Your task to perform on an android device: When is my next appointment? Image 0: 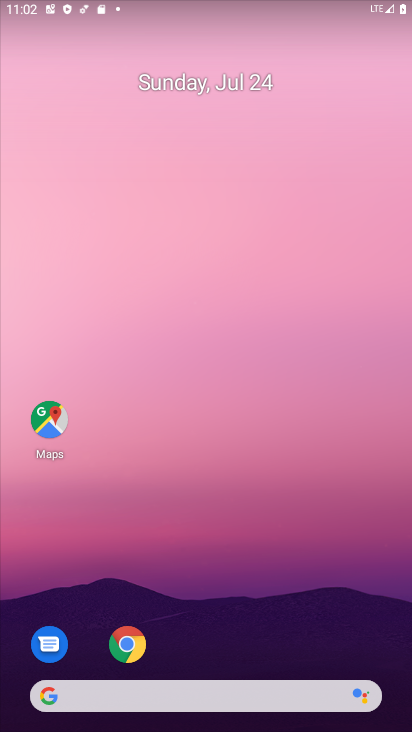
Step 0: press home button
Your task to perform on an android device: When is my next appointment? Image 1: 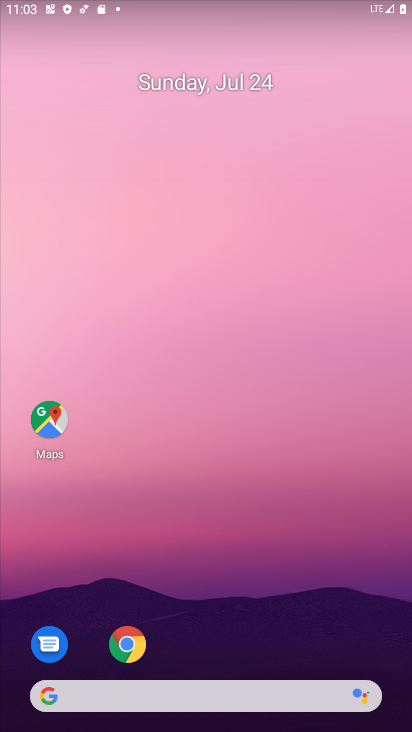
Step 1: drag from (222, 209) to (258, 74)
Your task to perform on an android device: When is my next appointment? Image 2: 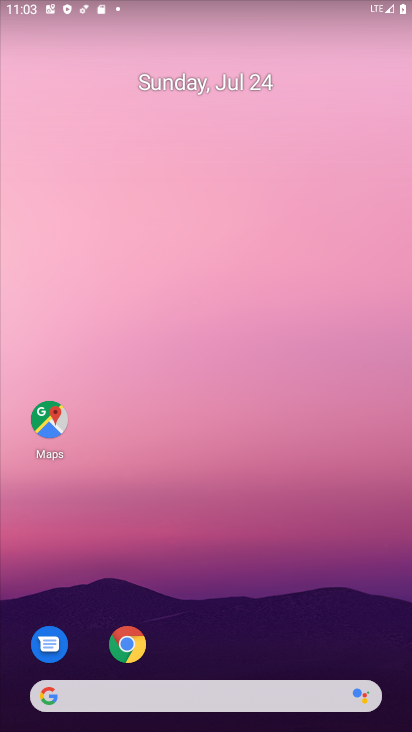
Step 2: drag from (93, 491) to (287, 17)
Your task to perform on an android device: When is my next appointment? Image 3: 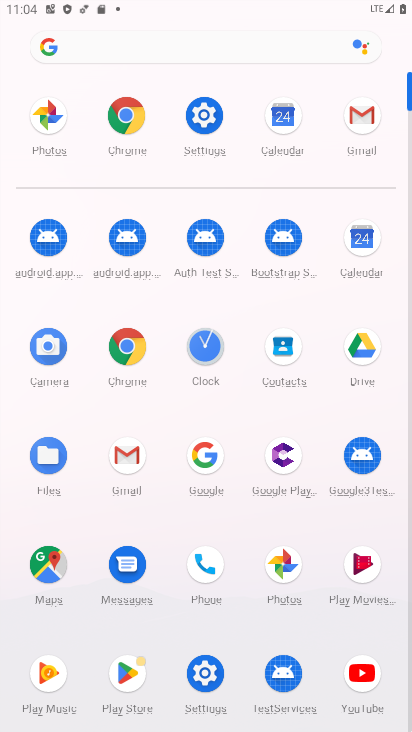
Step 3: click (366, 249)
Your task to perform on an android device: When is my next appointment? Image 4: 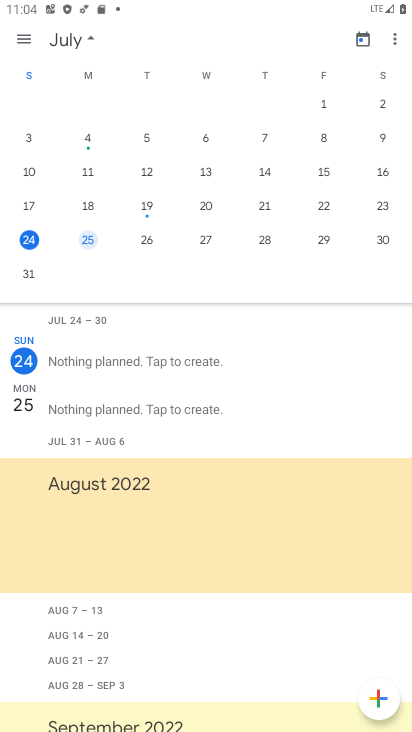
Step 4: task complete